Your task to perform on an android device: turn off sleep mode Image 0: 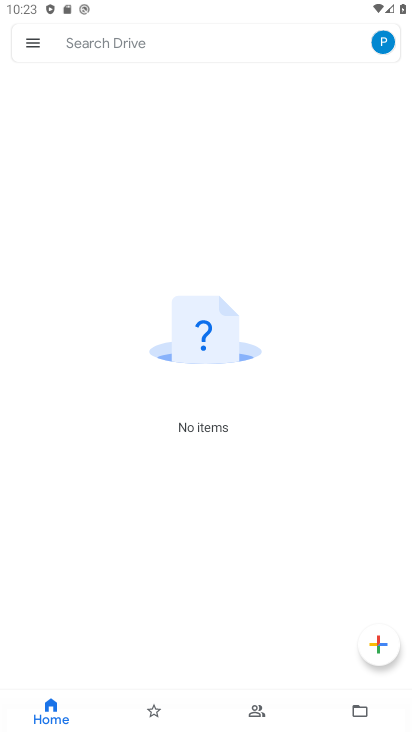
Step 0: press home button
Your task to perform on an android device: turn off sleep mode Image 1: 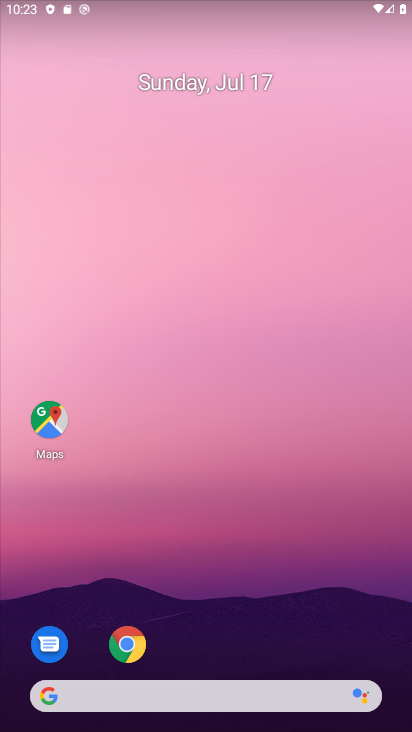
Step 1: drag from (306, 627) to (227, 35)
Your task to perform on an android device: turn off sleep mode Image 2: 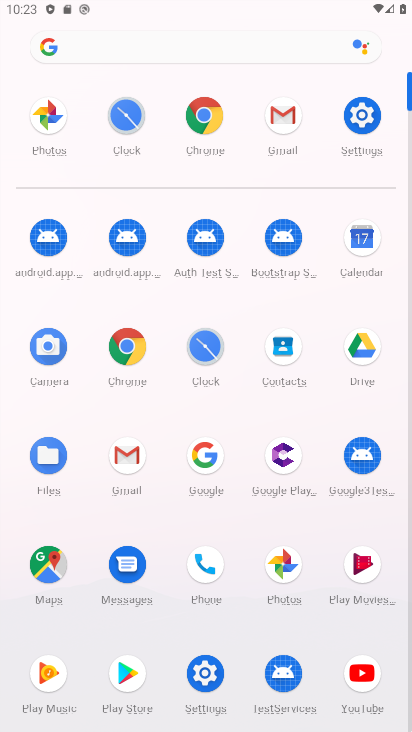
Step 2: click (376, 128)
Your task to perform on an android device: turn off sleep mode Image 3: 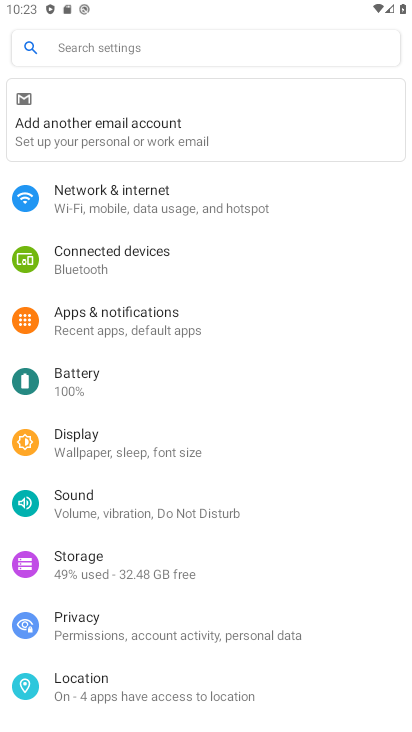
Step 3: click (66, 447)
Your task to perform on an android device: turn off sleep mode Image 4: 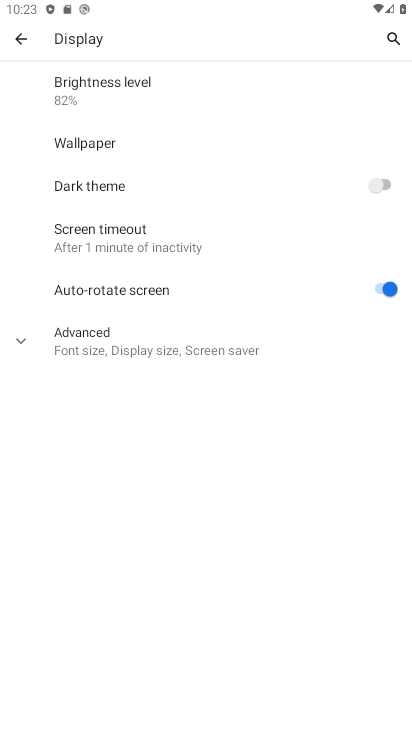
Step 4: click (145, 249)
Your task to perform on an android device: turn off sleep mode Image 5: 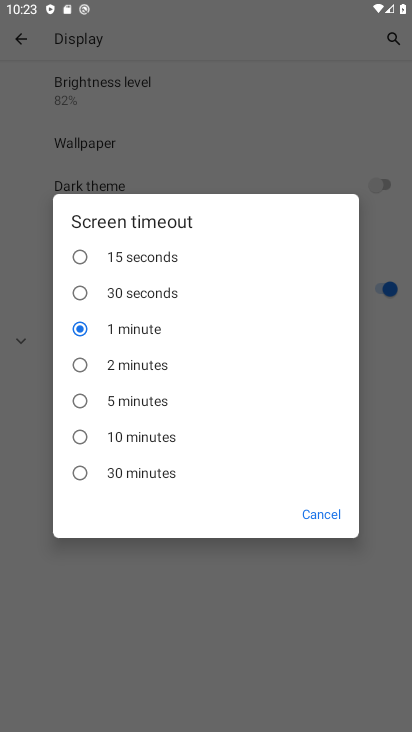
Step 5: task complete